Your task to perform on an android device: check storage Image 0: 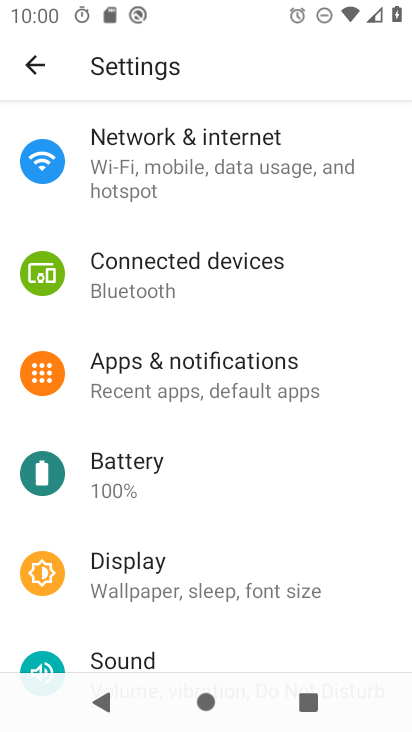
Step 0: drag from (181, 557) to (231, 183)
Your task to perform on an android device: check storage Image 1: 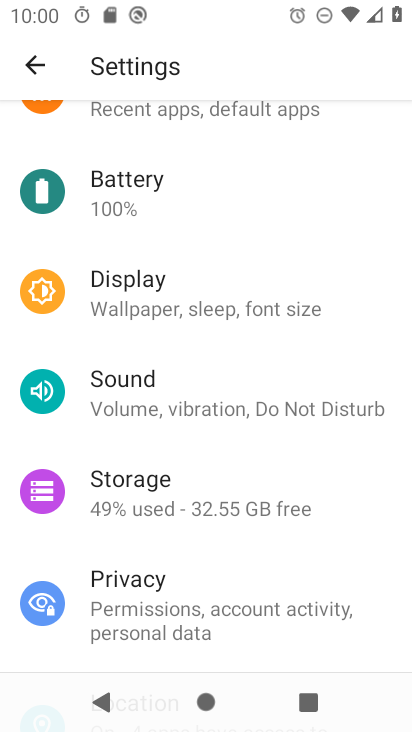
Step 1: click (237, 470)
Your task to perform on an android device: check storage Image 2: 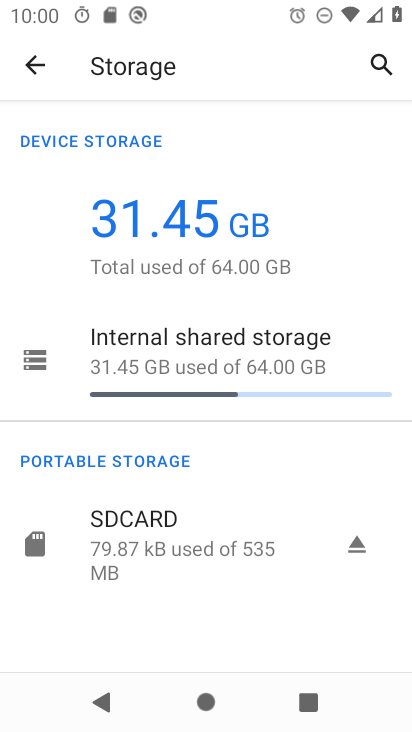
Step 2: task complete